Your task to perform on an android device: Go to CNN.com Image 0: 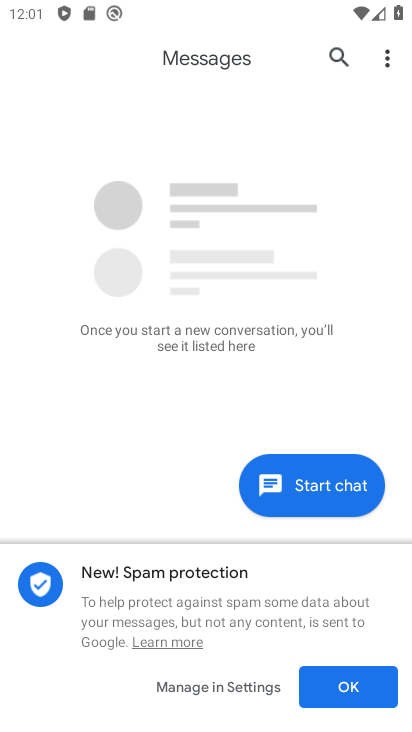
Step 0: click (404, 394)
Your task to perform on an android device: Go to CNN.com Image 1: 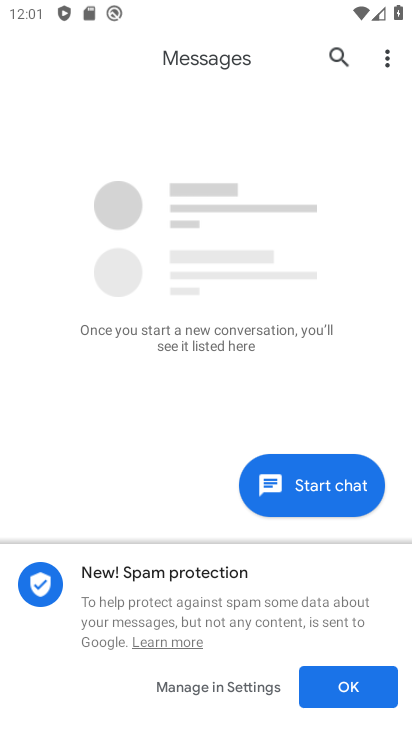
Step 1: press home button
Your task to perform on an android device: Go to CNN.com Image 2: 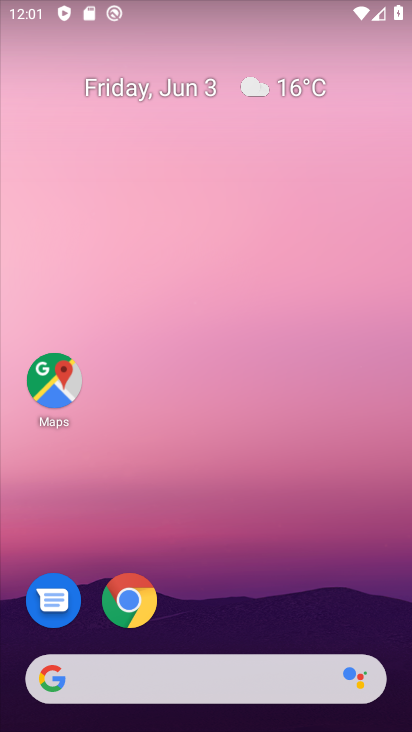
Step 2: click (138, 651)
Your task to perform on an android device: Go to CNN.com Image 3: 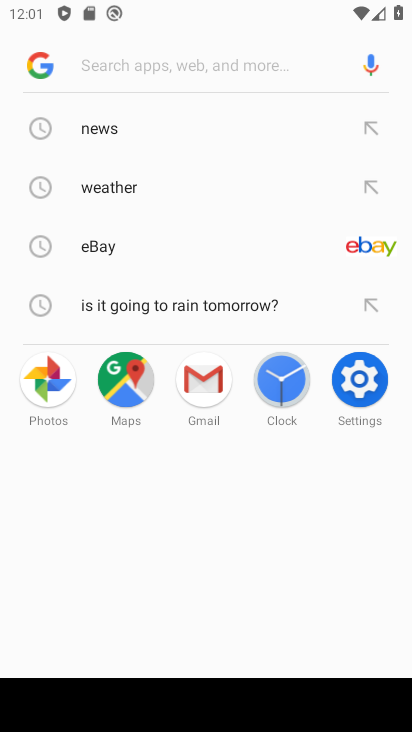
Step 3: type "CNN.com"
Your task to perform on an android device: Go to CNN.com Image 4: 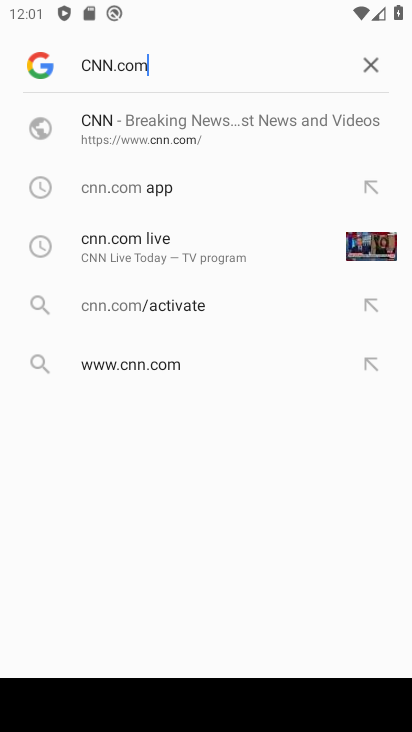
Step 4: click (154, 120)
Your task to perform on an android device: Go to CNN.com Image 5: 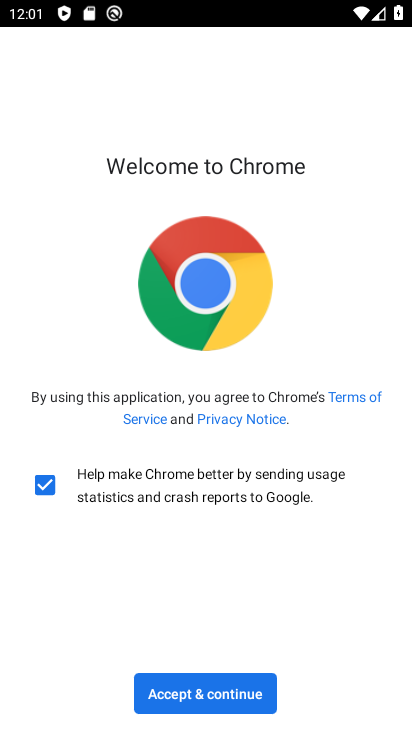
Step 5: click (234, 694)
Your task to perform on an android device: Go to CNN.com Image 6: 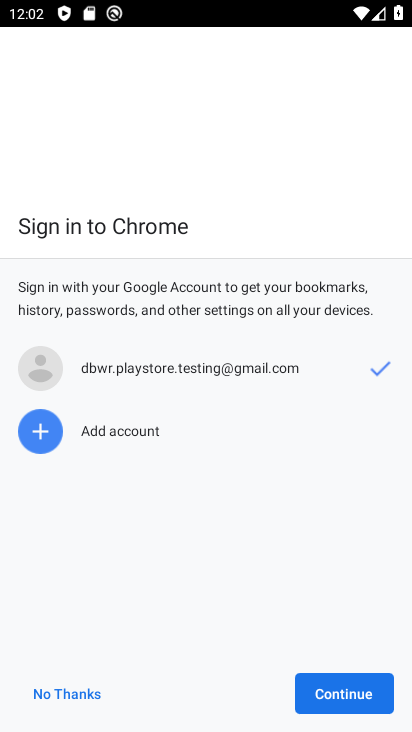
Step 6: click (345, 695)
Your task to perform on an android device: Go to CNN.com Image 7: 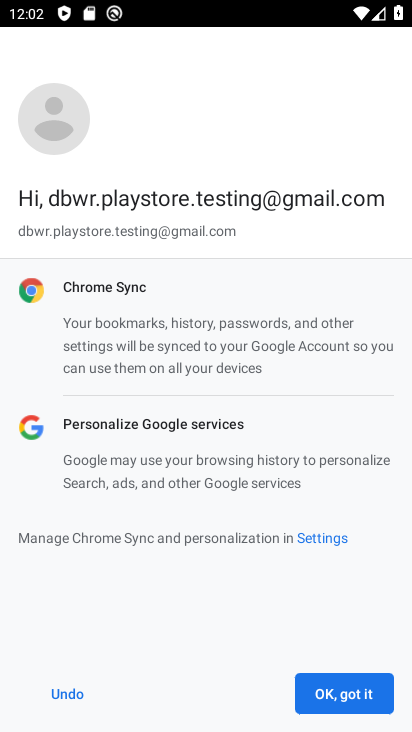
Step 7: click (345, 697)
Your task to perform on an android device: Go to CNN.com Image 8: 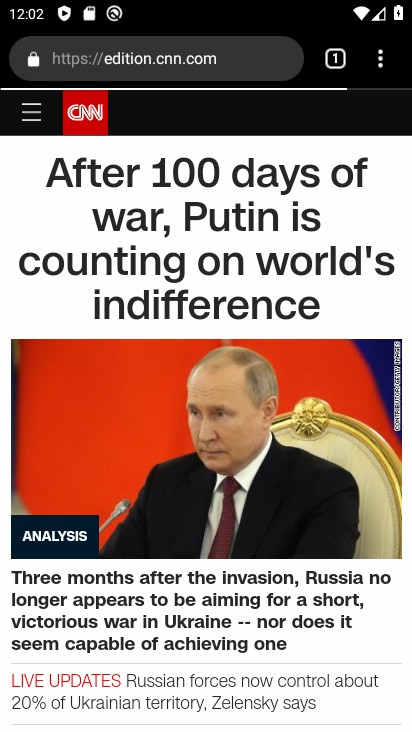
Step 8: task complete